Your task to perform on an android device: Show me recent news Image 0: 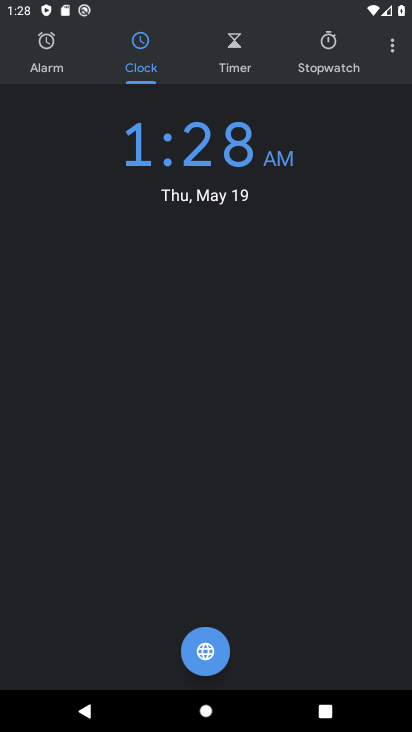
Step 0: press home button
Your task to perform on an android device: Show me recent news Image 1: 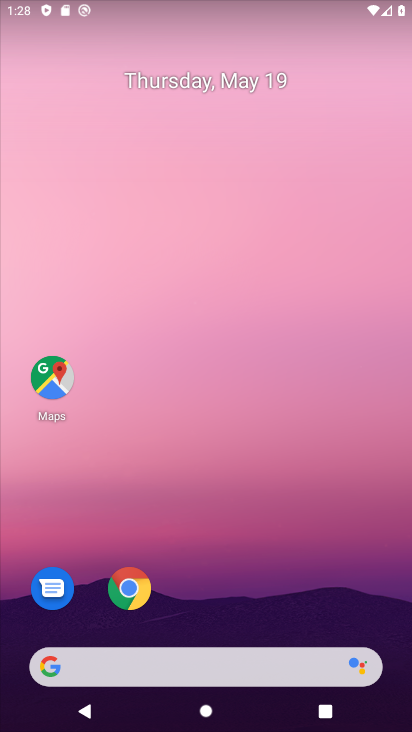
Step 1: click (122, 579)
Your task to perform on an android device: Show me recent news Image 2: 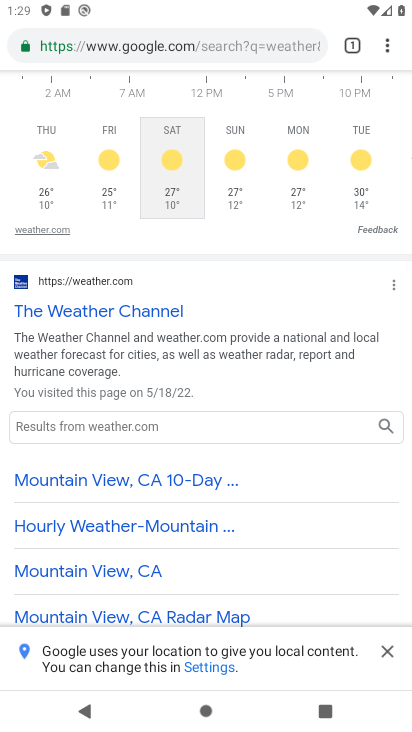
Step 2: click (281, 49)
Your task to perform on an android device: Show me recent news Image 3: 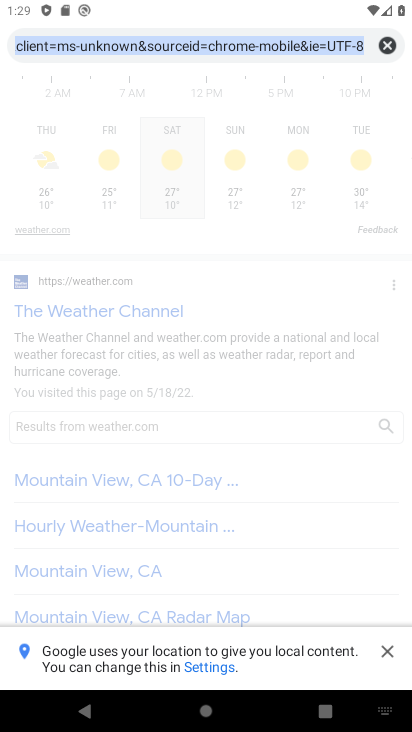
Step 3: type "news"
Your task to perform on an android device: Show me recent news Image 4: 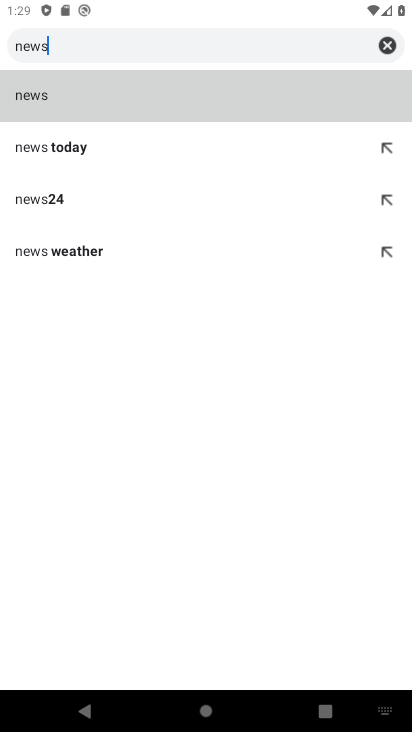
Step 4: click (45, 98)
Your task to perform on an android device: Show me recent news Image 5: 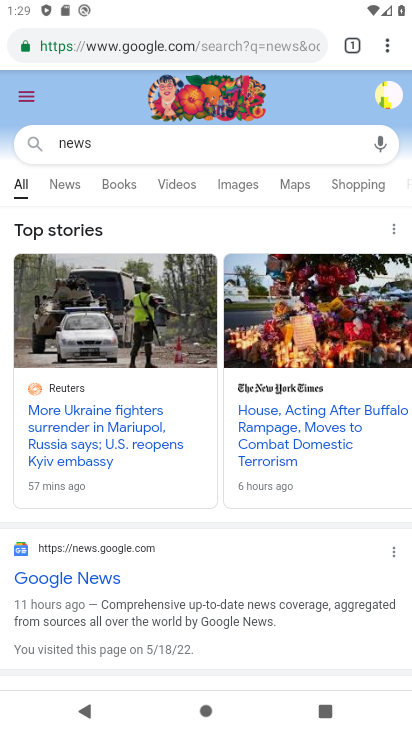
Step 5: click (68, 183)
Your task to perform on an android device: Show me recent news Image 6: 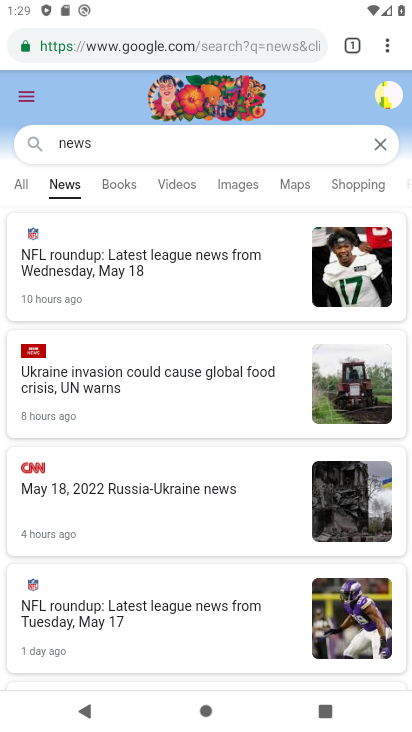
Step 6: task complete